Your task to perform on an android device: snooze an email in the gmail app Image 0: 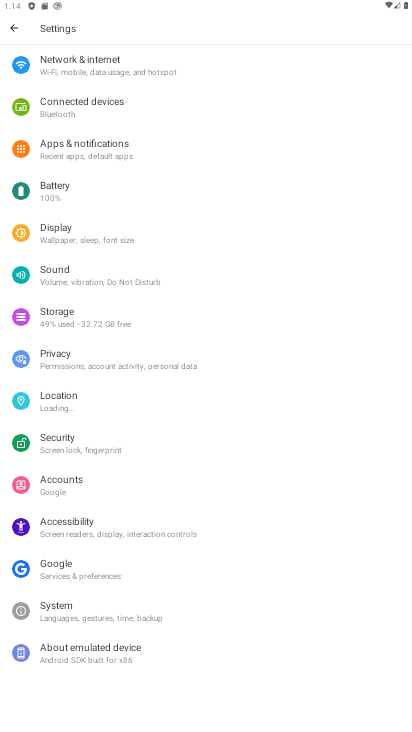
Step 0: press home button
Your task to perform on an android device: snooze an email in the gmail app Image 1: 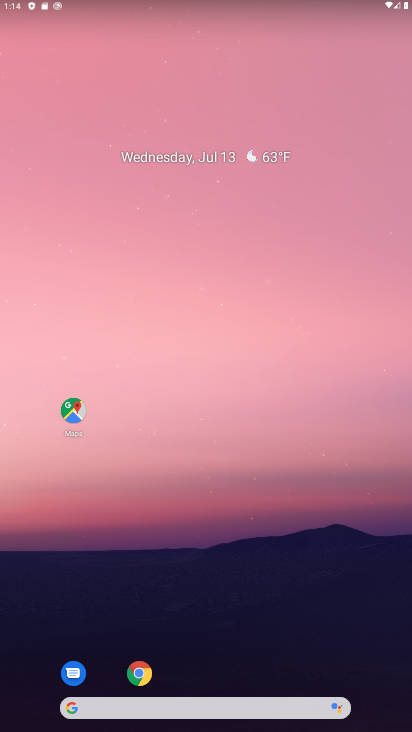
Step 1: drag from (164, 561) to (177, 242)
Your task to perform on an android device: snooze an email in the gmail app Image 2: 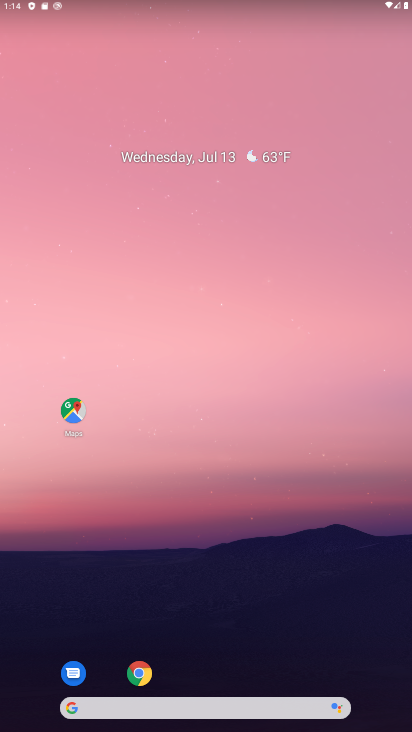
Step 2: drag from (268, 660) to (280, 212)
Your task to perform on an android device: snooze an email in the gmail app Image 3: 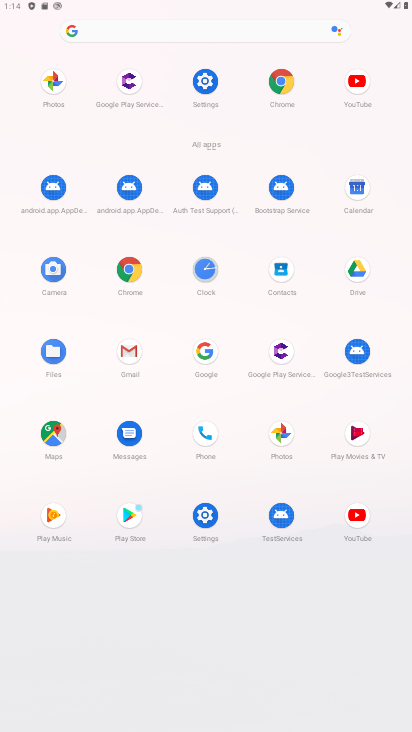
Step 3: click (129, 345)
Your task to perform on an android device: snooze an email in the gmail app Image 4: 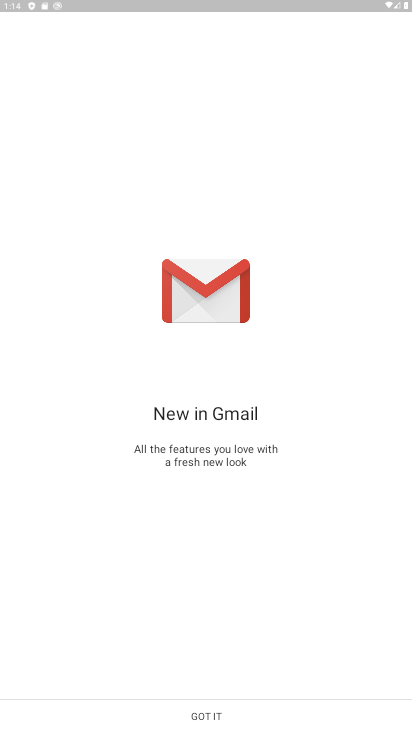
Step 4: click (198, 714)
Your task to perform on an android device: snooze an email in the gmail app Image 5: 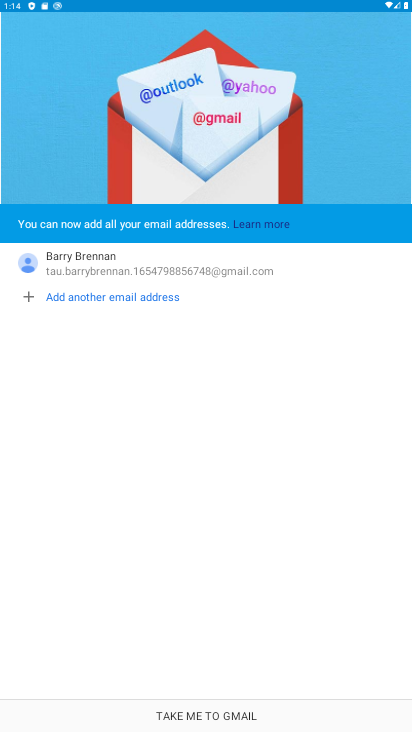
Step 5: click (198, 714)
Your task to perform on an android device: snooze an email in the gmail app Image 6: 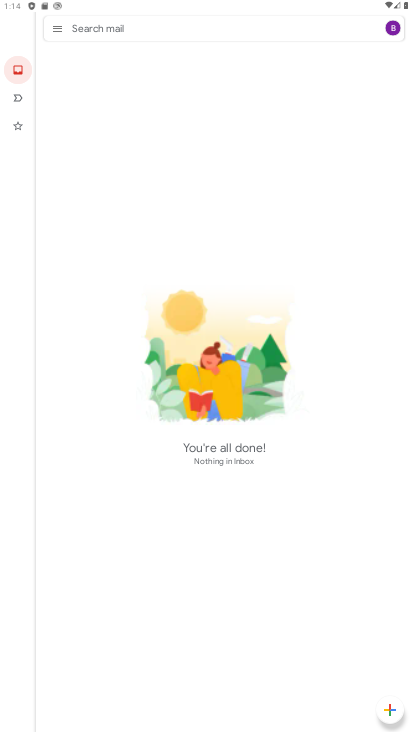
Step 6: click (56, 21)
Your task to perform on an android device: snooze an email in the gmail app Image 7: 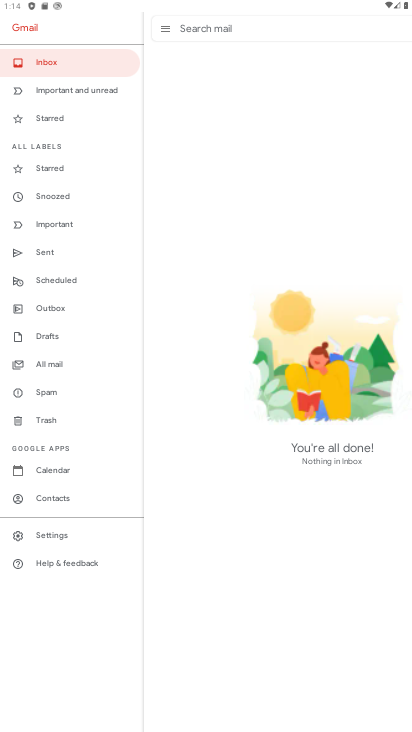
Step 7: click (62, 187)
Your task to perform on an android device: snooze an email in the gmail app Image 8: 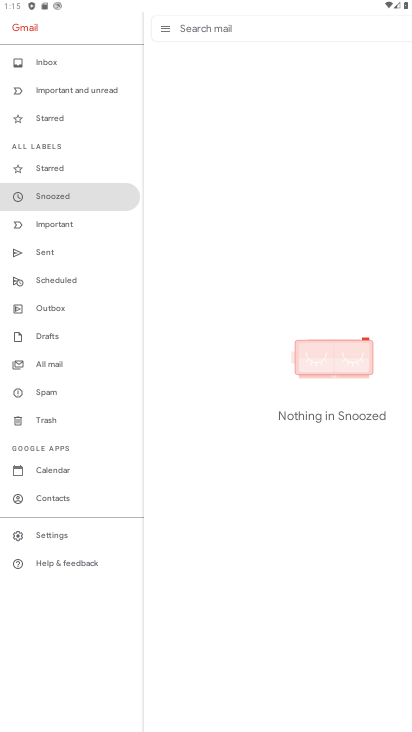
Step 8: task complete